Your task to perform on an android device: change notification settings in the gmail app Image 0: 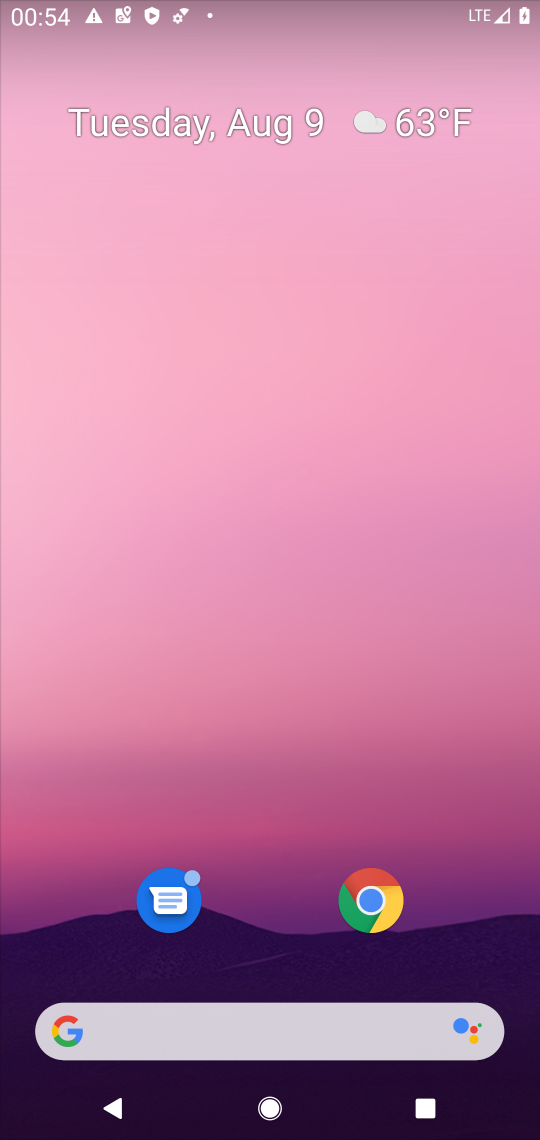
Step 0: drag from (439, 899) to (479, 214)
Your task to perform on an android device: change notification settings in the gmail app Image 1: 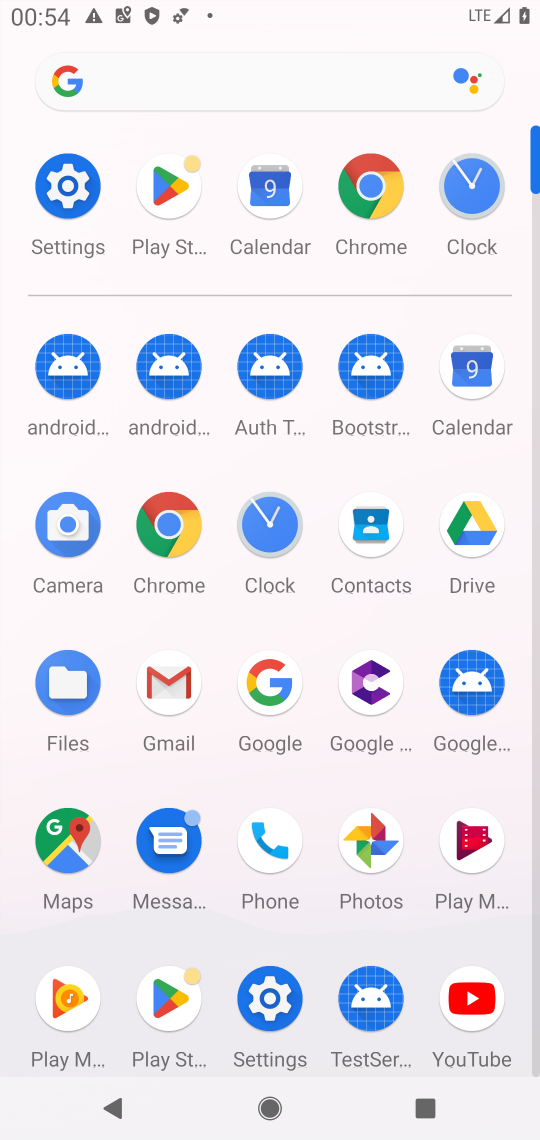
Step 1: click (166, 684)
Your task to perform on an android device: change notification settings in the gmail app Image 2: 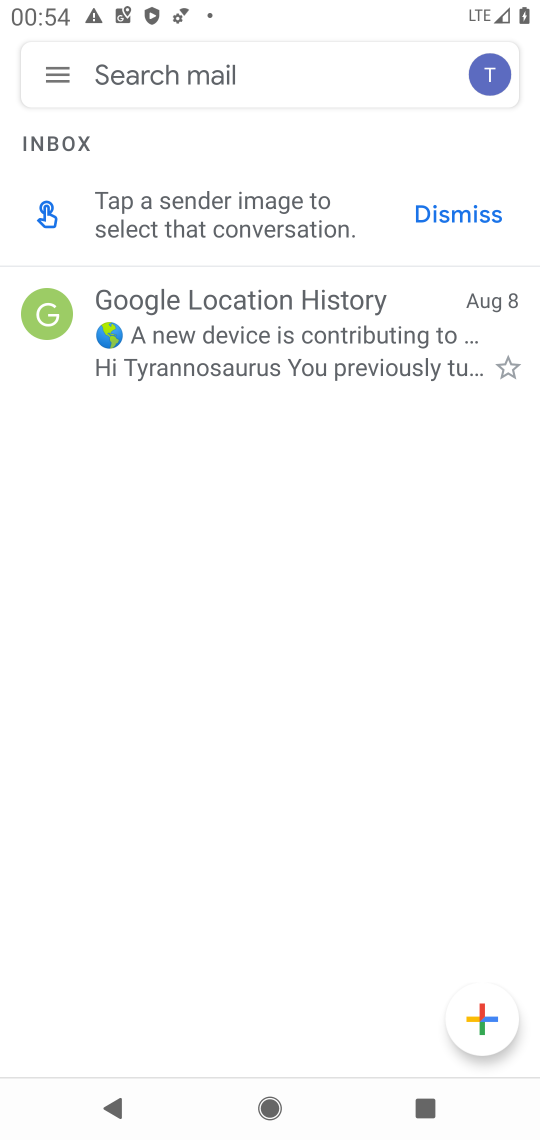
Step 2: click (57, 79)
Your task to perform on an android device: change notification settings in the gmail app Image 3: 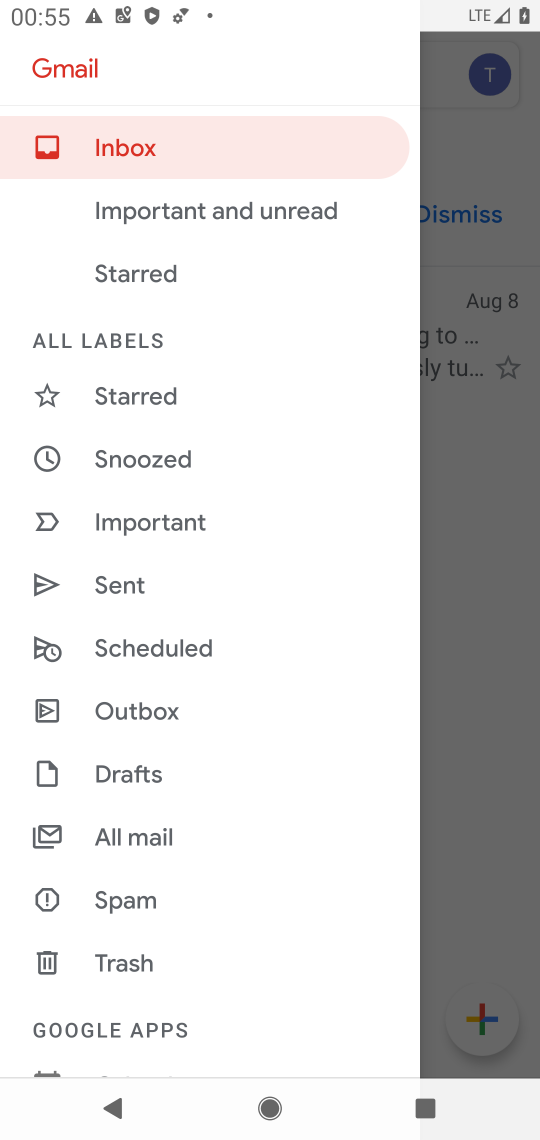
Step 3: drag from (271, 791) to (313, 442)
Your task to perform on an android device: change notification settings in the gmail app Image 4: 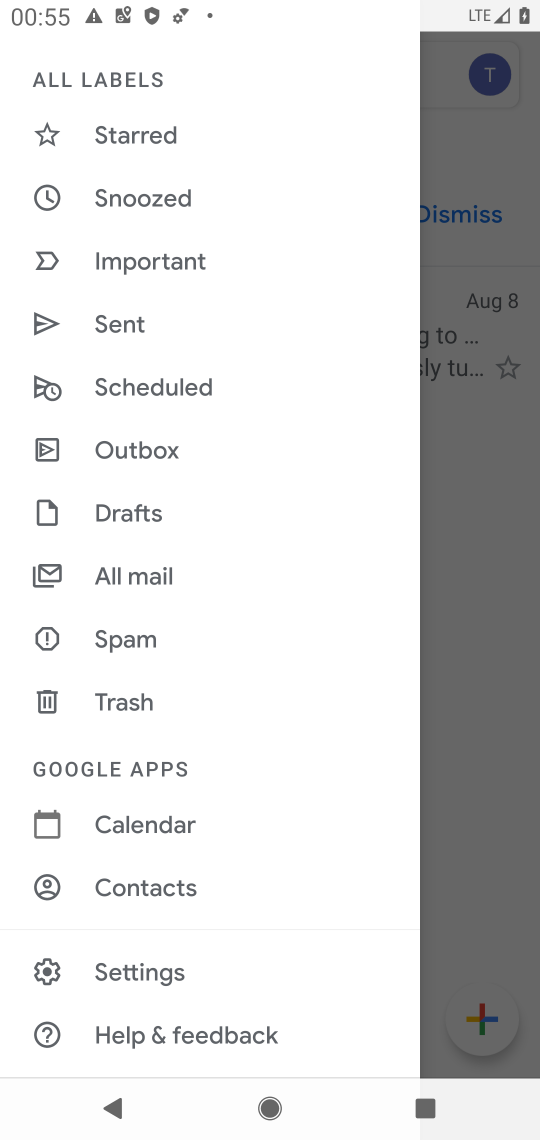
Step 4: drag from (286, 778) to (310, 482)
Your task to perform on an android device: change notification settings in the gmail app Image 5: 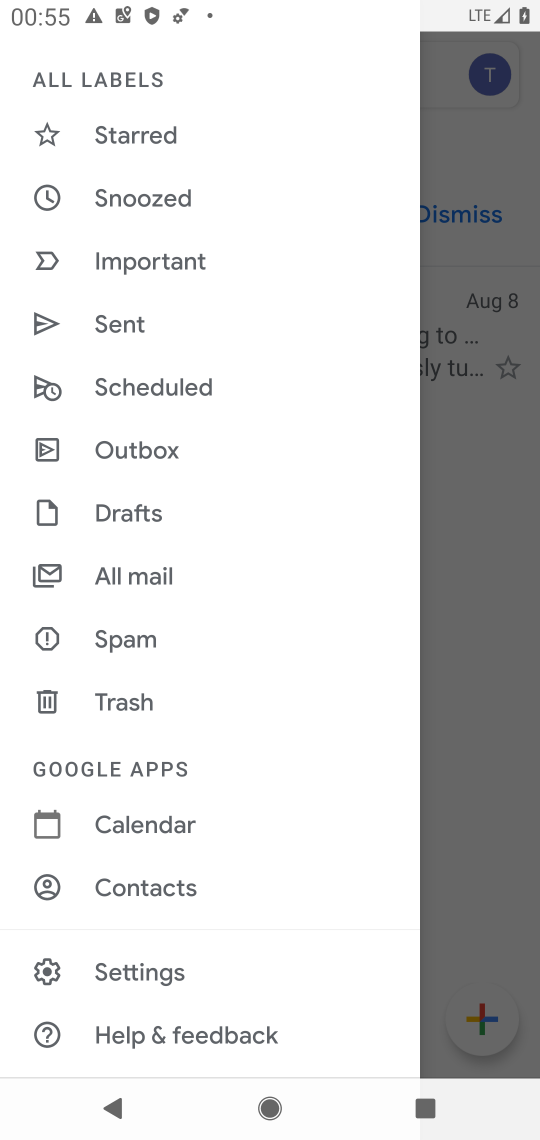
Step 5: click (160, 974)
Your task to perform on an android device: change notification settings in the gmail app Image 6: 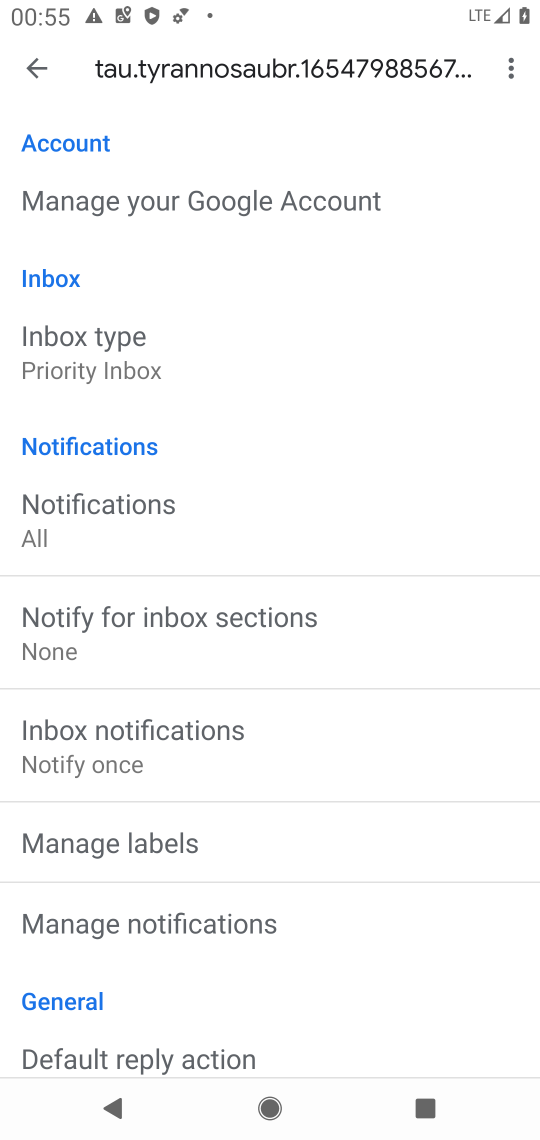
Step 6: drag from (377, 745) to (395, 521)
Your task to perform on an android device: change notification settings in the gmail app Image 7: 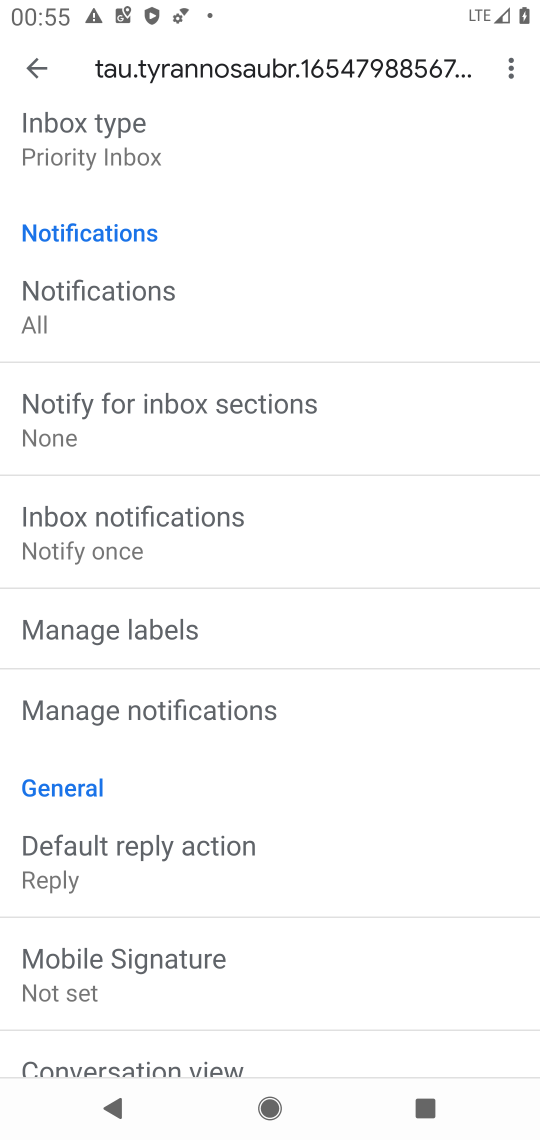
Step 7: drag from (455, 321) to (471, 791)
Your task to perform on an android device: change notification settings in the gmail app Image 8: 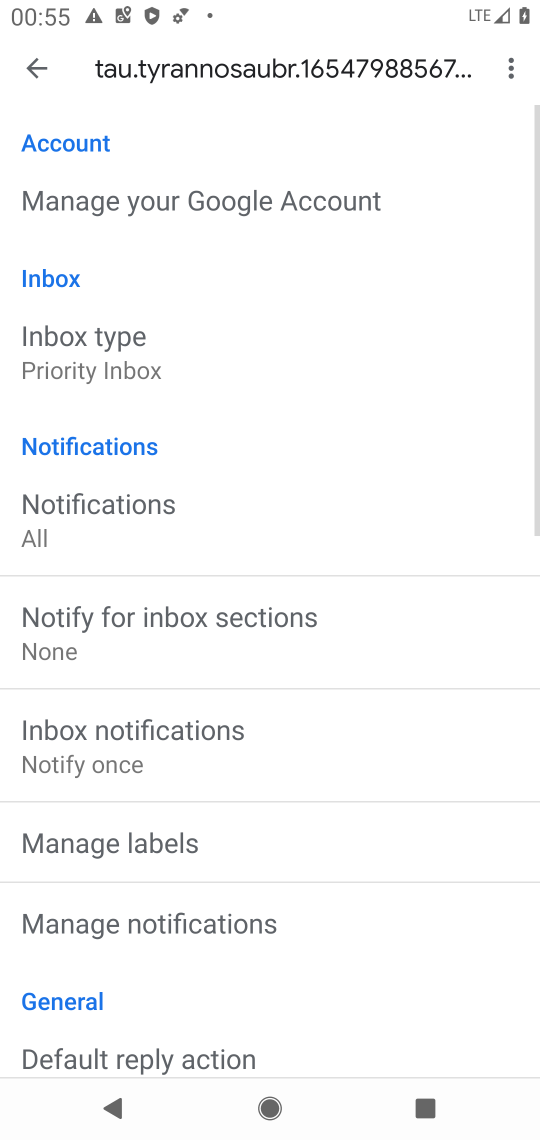
Step 8: drag from (372, 703) to (399, 341)
Your task to perform on an android device: change notification settings in the gmail app Image 9: 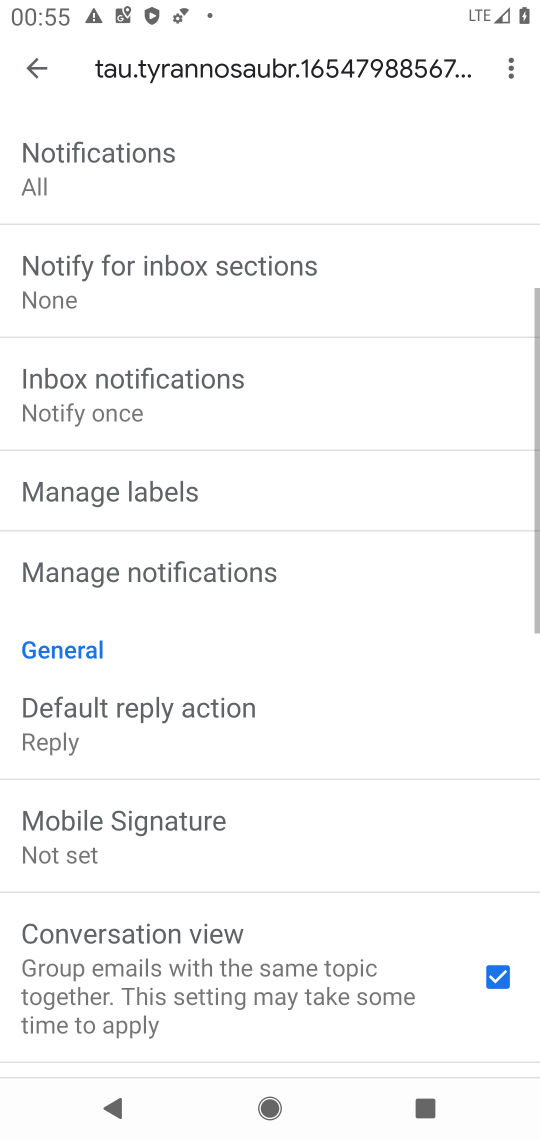
Step 9: drag from (402, 519) to (411, 377)
Your task to perform on an android device: change notification settings in the gmail app Image 10: 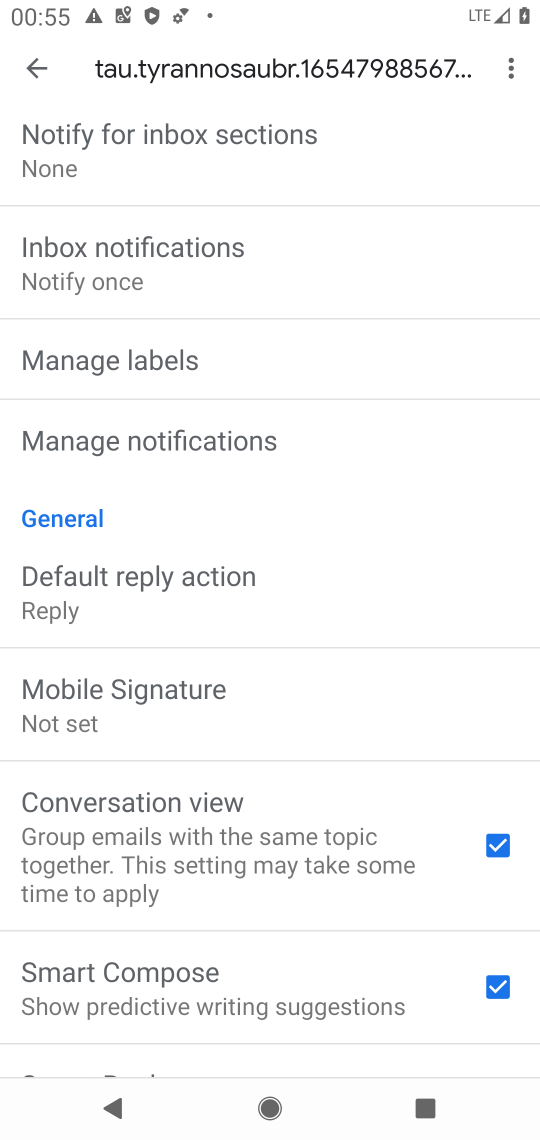
Step 10: drag from (419, 351) to (435, 733)
Your task to perform on an android device: change notification settings in the gmail app Image 11: 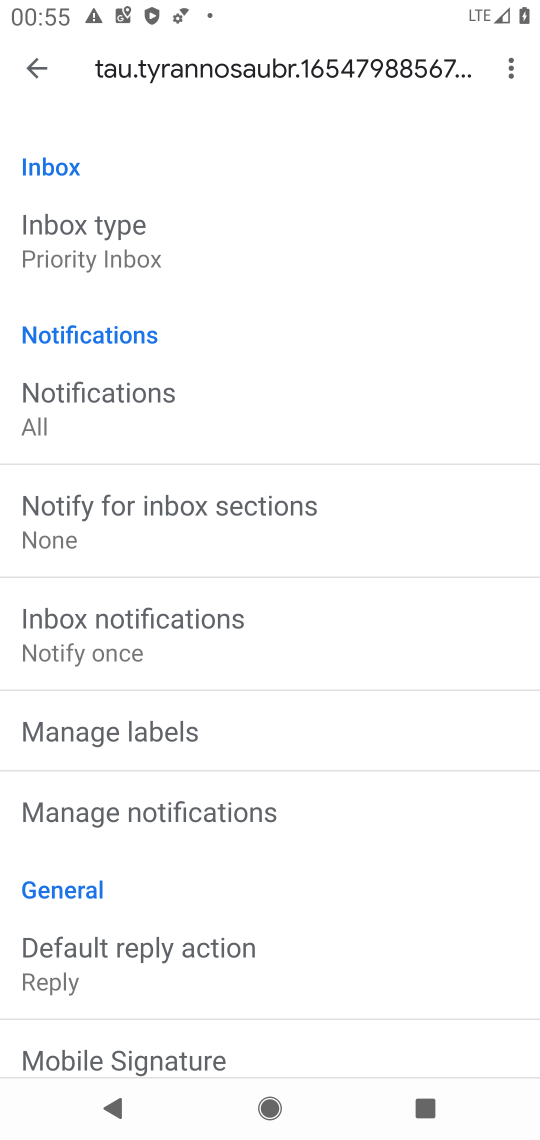
Step 11: drag from (395, 440) to (397, 727)
Your task to perform on an android device: change notification settings in the gmail app Image 12: 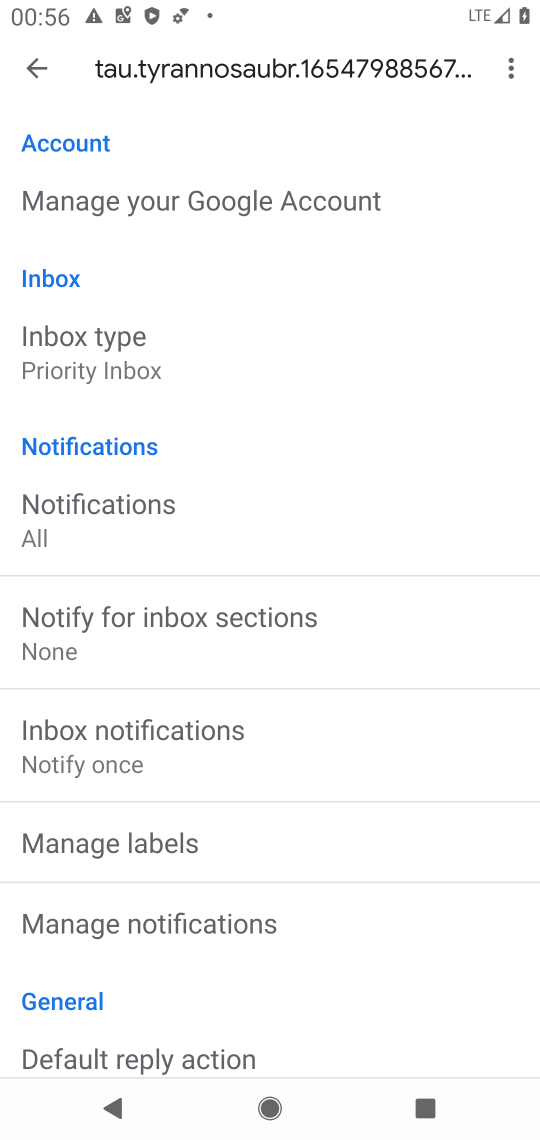
Step 12: drag from (427, 349) to (425, 733)
Your task to perform on an android device: change notification settings in the gmail app Image 13: 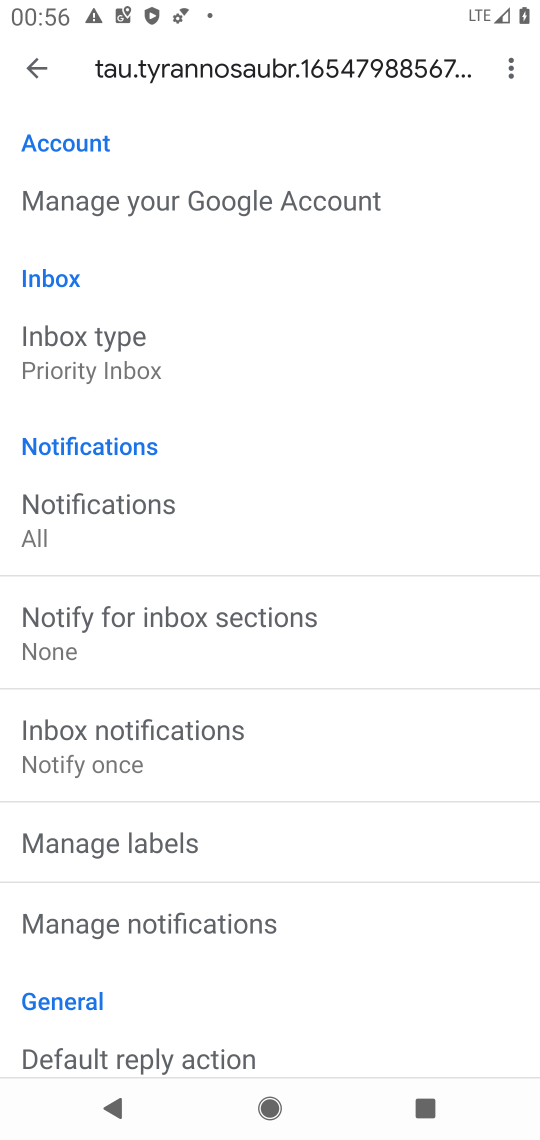
Step 13: click (232, 927)
Your task to perform on an android device: change notification settings in the gmail app Image 14: 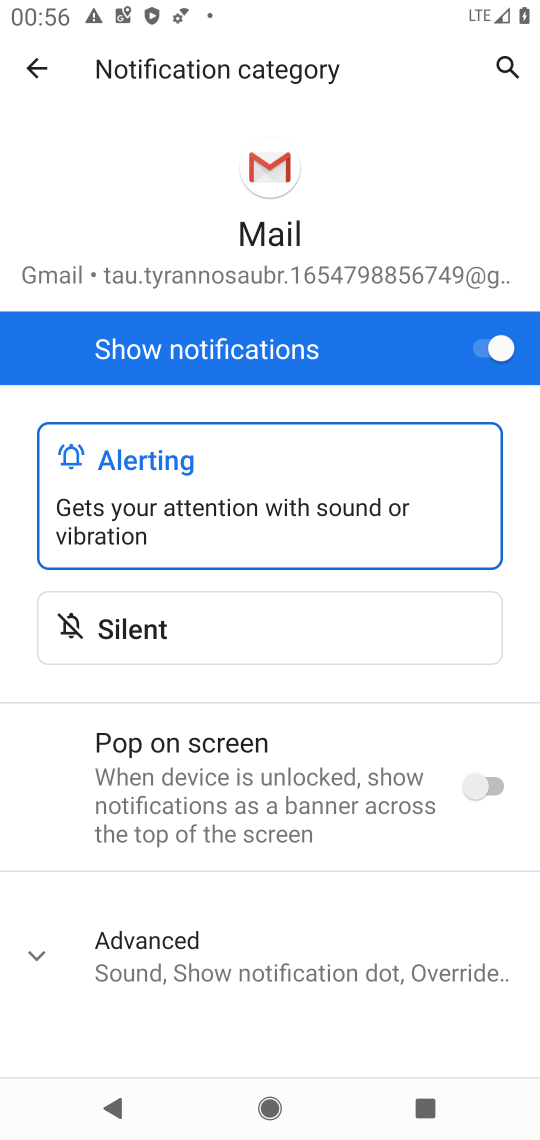
Step 14: click (499, 348)
Your task to perform on an android device: change notification settings in the gmail app Image 15: 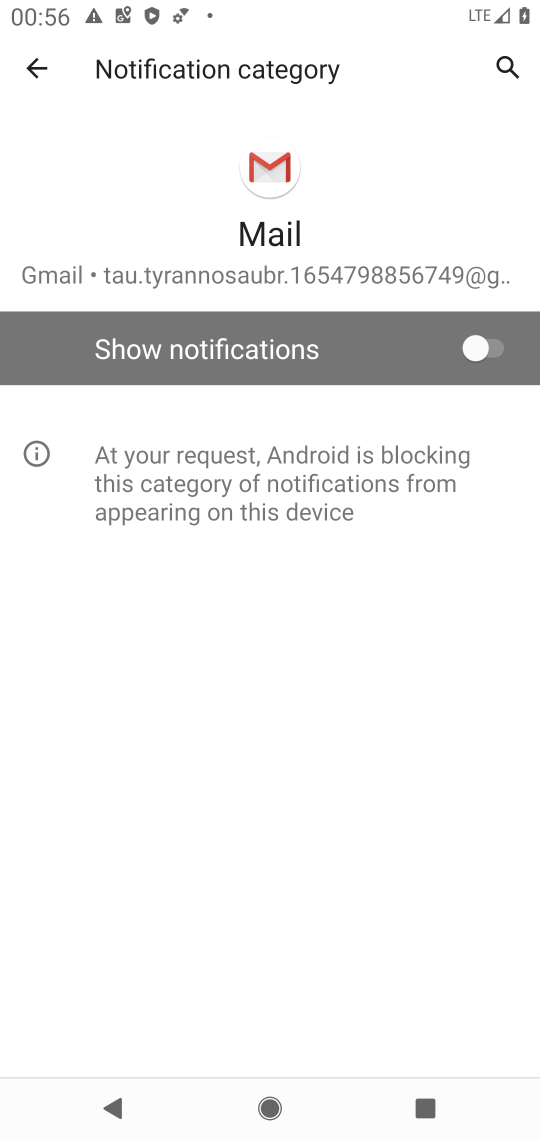
Step 15: task complete